Your task to perform on an android device: turn on priority inbox in the gmail app Image 0: 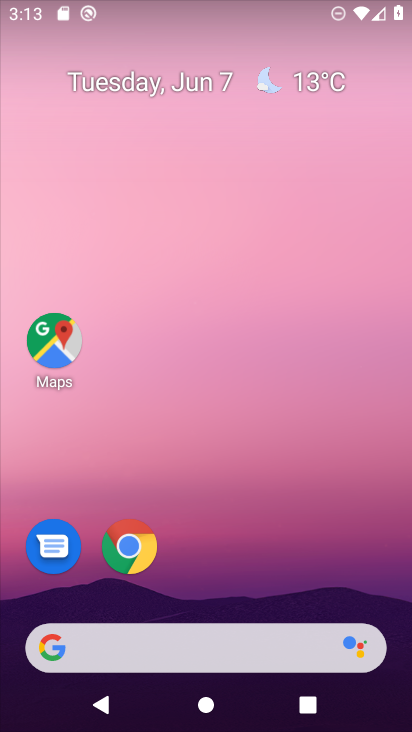
Step 0: drag from (22, 571) to (233, 146)
Your task to perform on an android device: turn on priority inbox in the gmail app Image 1: 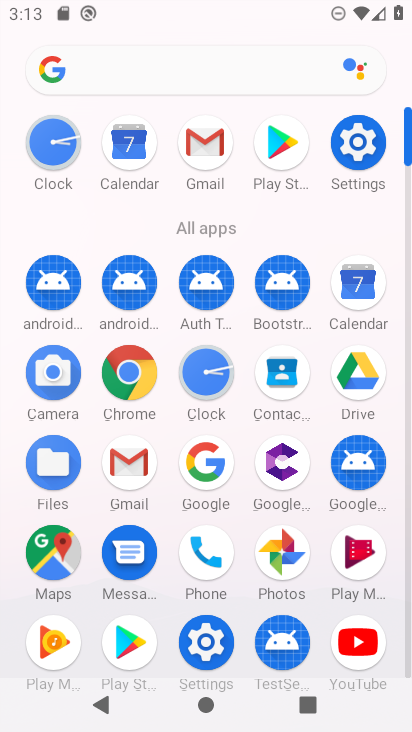
Step 1: click (135, 474)
Your task to perform on an android device: turn on priority inbox in the gmail app Image 2: 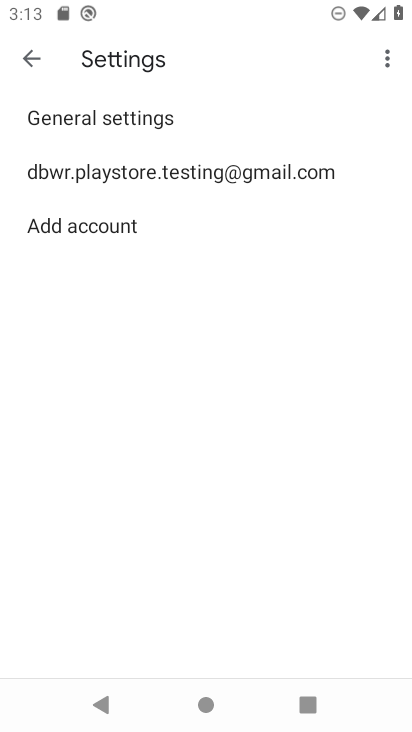
Step 2: click (188, 167)
Your task to perform on an android device: turn on priority inbox in the gmail app Image 3: 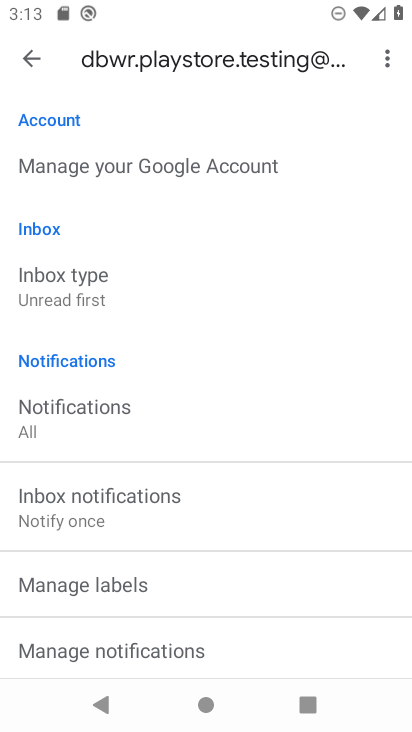
Step 3: click (127, 294)
Your task to perform on an android device: turn on priority inbox in the gmail app Image 4: 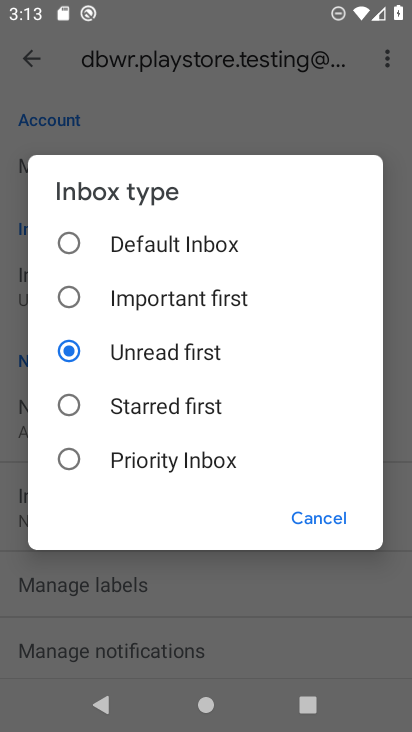
Step 4: click (149, 470)
Your task to perform on an android device: turn on priority inbox in the gmail app Image 5: 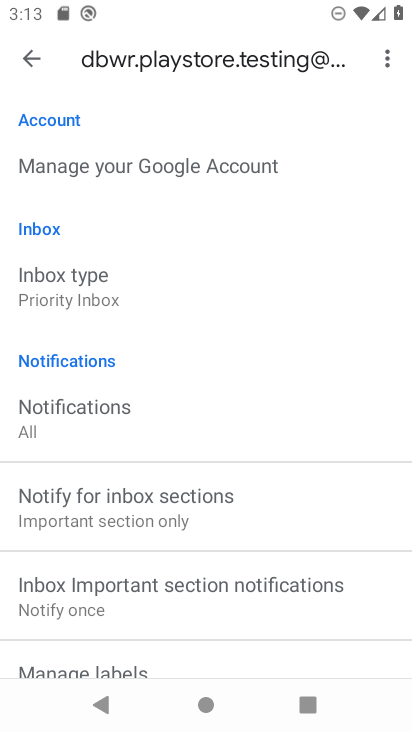
Step 5: task complete